Your task to perform on an android device: Go to network settings Image 0: 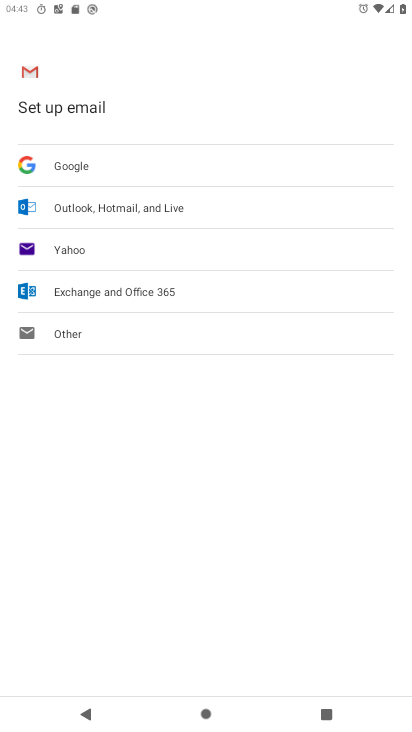
Step 0: press home button
Your task to perform on an android device: Go to network settings Image 1: 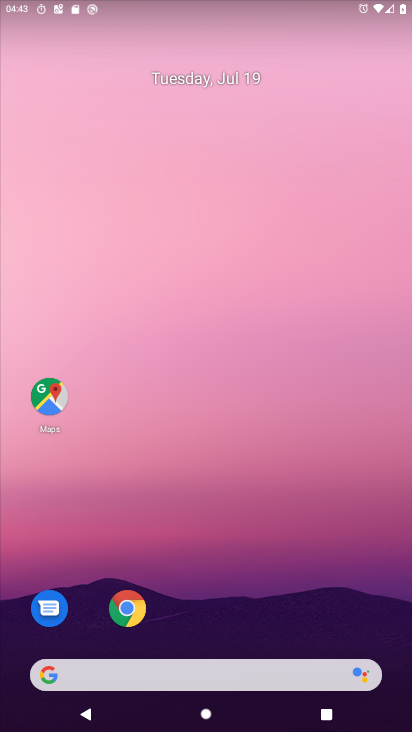
Step 1: drag from (198, 678) to (233, 189)
Your task to perform on an android device: Go to network settings Image 2: 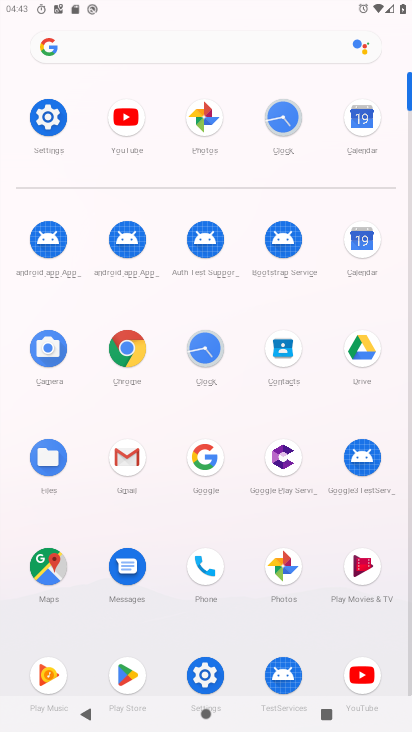
Step 2: click (48, 118)
Your task to perform on an android device: Go to network settings Image 3: 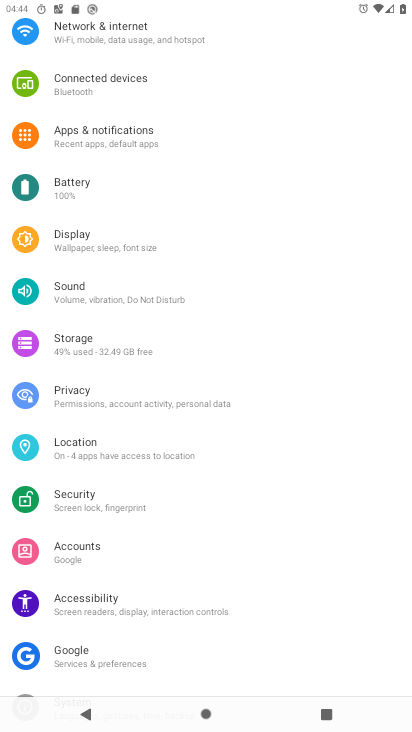
Step 3: click (117, 40)
Your task to perform on an android device: Go to network settings Image 4: 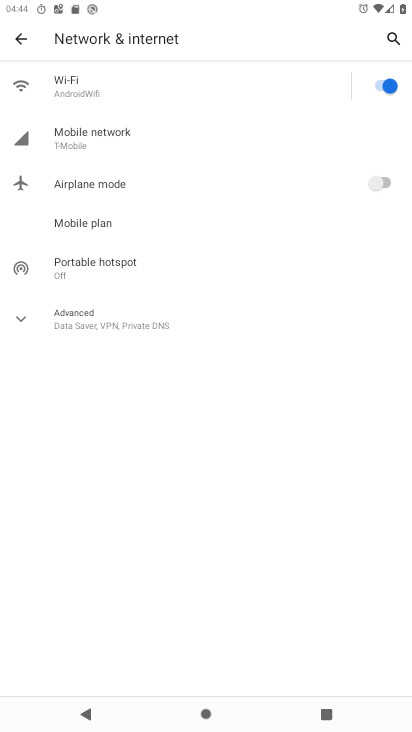
Step 4: task complete